Your task to perform on an android device: turn on location history Image 0: 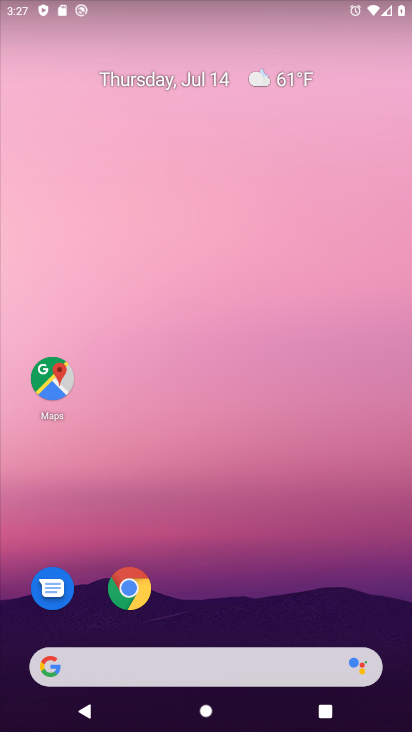
Step 0: press home button
Your task to perform on an android device: turn on location history Image 1: 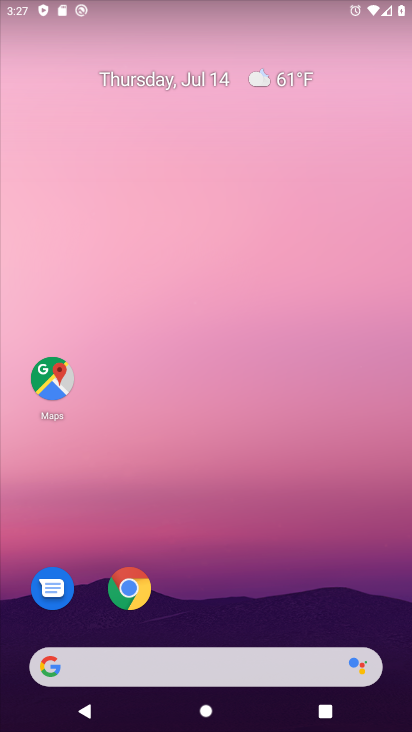
Step 1: drag from (308, 625) to (275, 38)
Your task to perform on an android device: turn on location history Image 2: 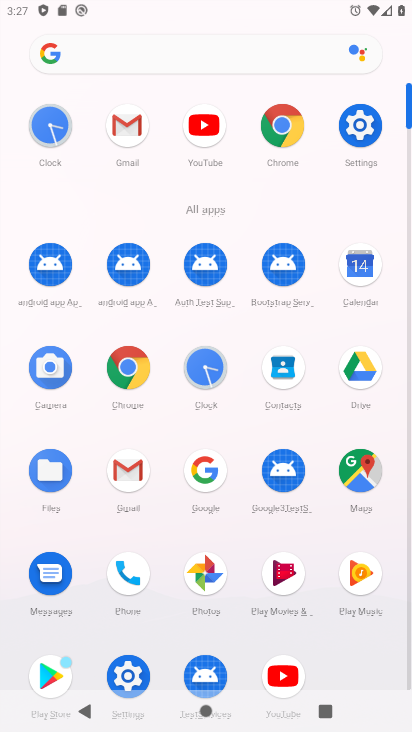
Step 2: click (360, 124)
Your task to perform on an android device: turn on location history Image 3: 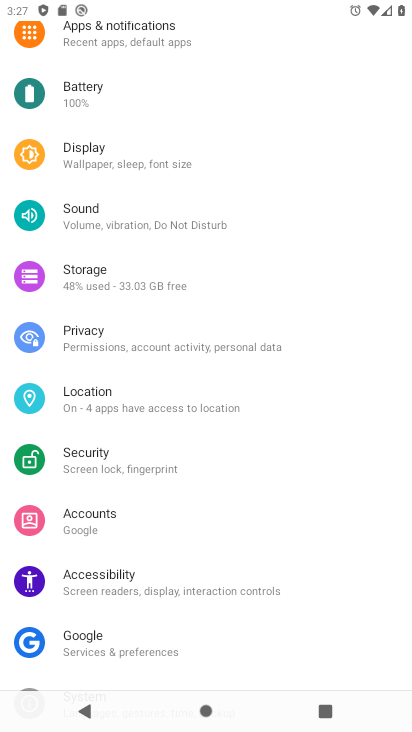
Step 3: click (108, 390)
Your task to perform on an android device: turn on location history Image 4: 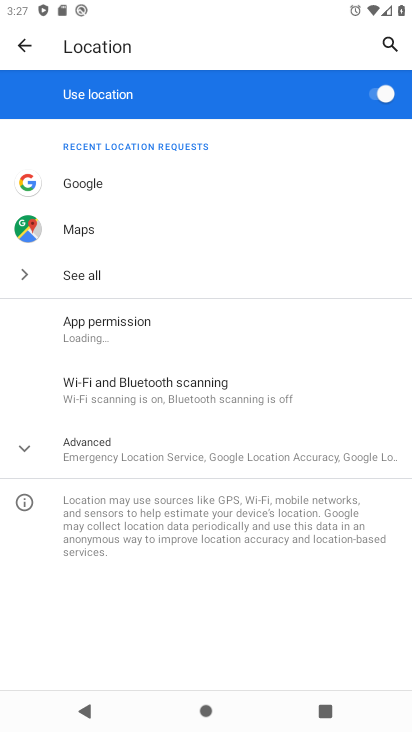
Step 4: click (22, 453)
Your task to perform on an android device: turn on location history Image 5: 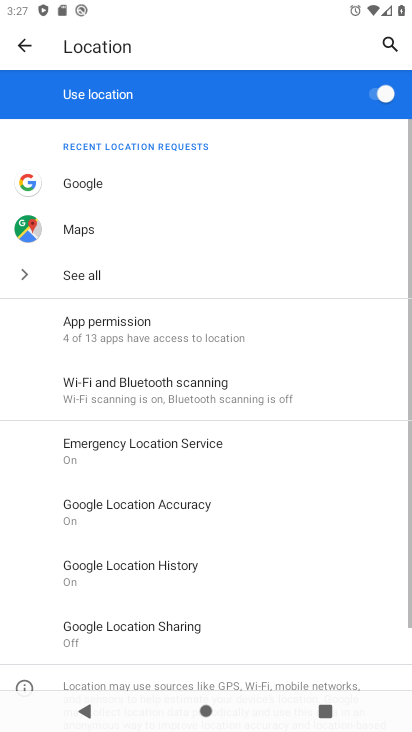
Step 5: click (159, 568)
Your task to perform on an android device: turn on location history Image 6: 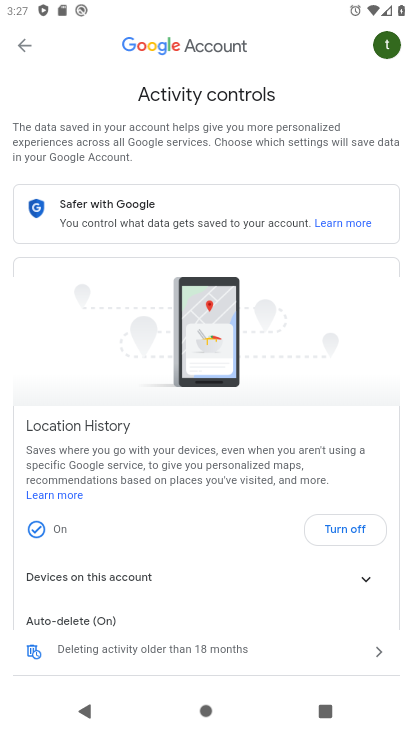
Step 6: task complete